Your task to perform on an android device: change the clock style Image 0: 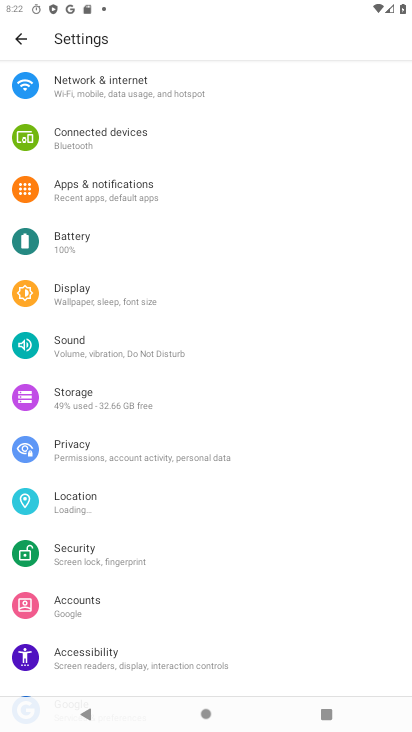
Step 0: press home button
Your task to perform on an android device: change the clock style Image 1: 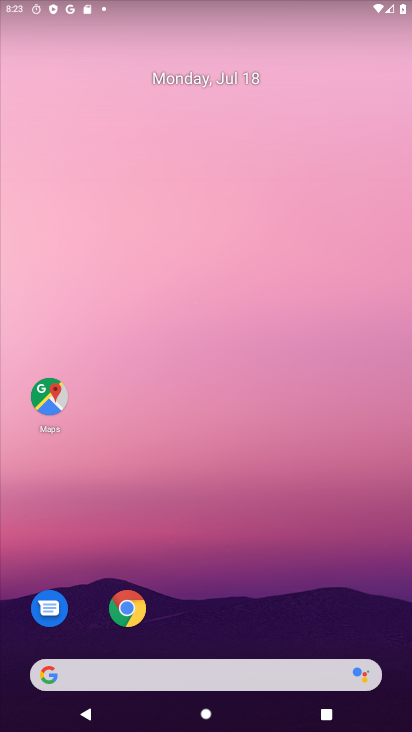
Step 1: drag from (27, 702) to (144, 298)
Your task to perform on an android device: change the clock style Image 2: 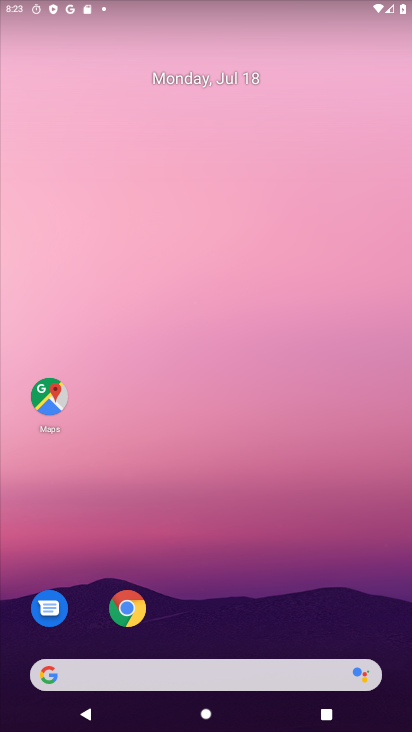
Step 2: drag from (22, 669) to (205, 198)
Your task to perform on an android device: change the clock style Image 3: 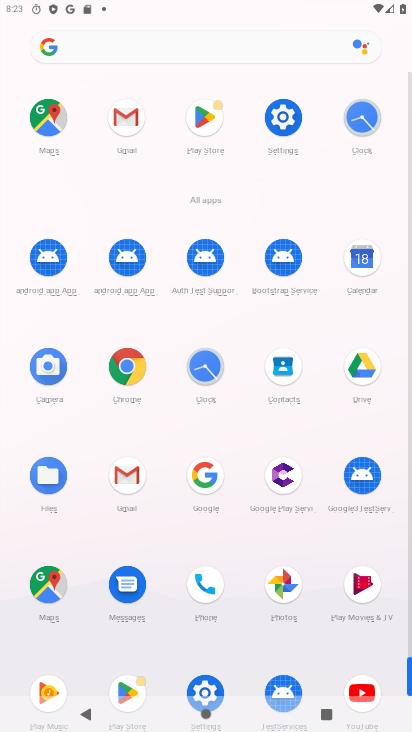
Step 3: click (208, 384)
Your task to perform on an android device: change the clock style Image 4: 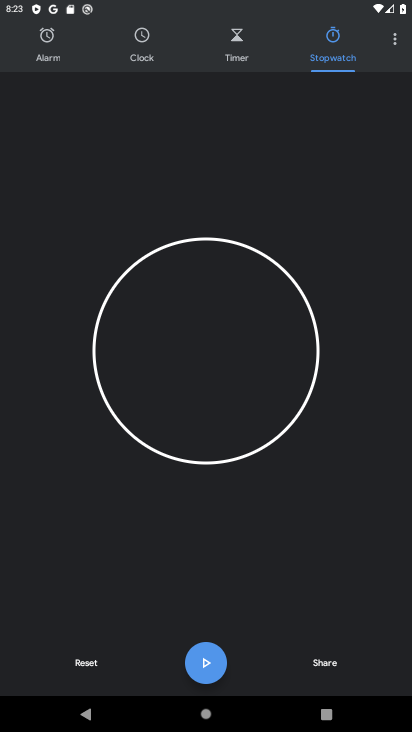
Step 4: click (45, 62)
Your task to perform on an android device: change the clock style Image 5: 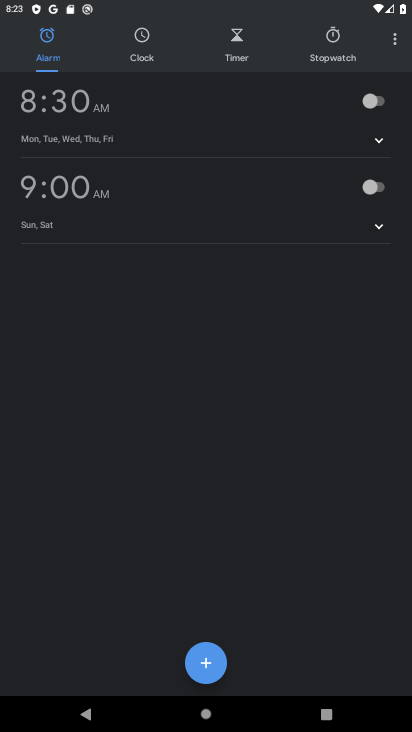
Step 5: click (392, 40)
Your task to perform on an android device: change the clock style Image 6: 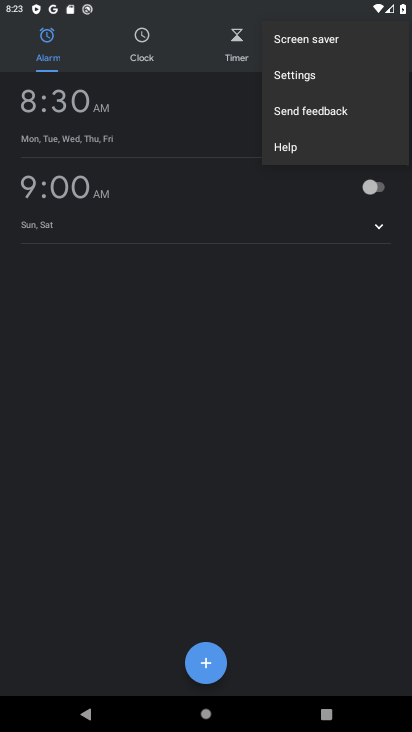
Step 6: click (283, 65)
Your task to perform on an android device: change the clock style Image 7: 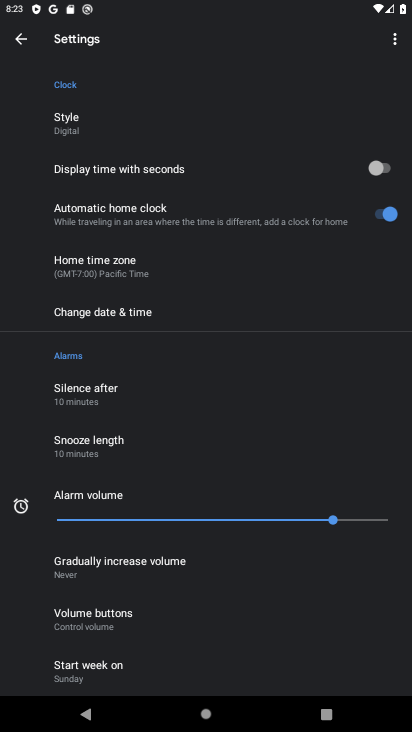
Step 7: click (67, 129)
Your task to perform on an android device: change the clock style Image 8: 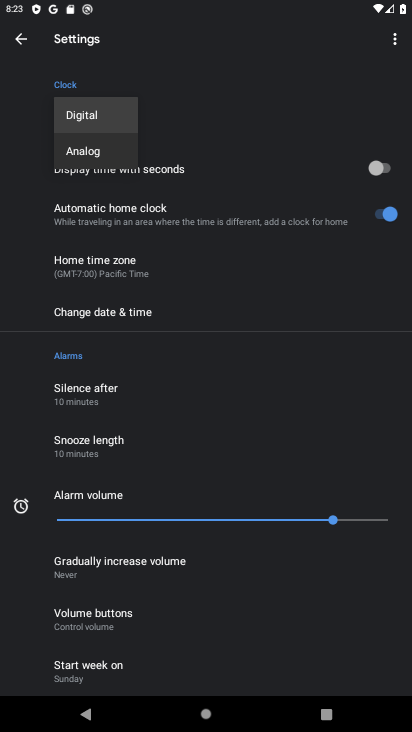
Step 8: click (78, 159)
Your task to perform on an android device: change the clock style Image 9: 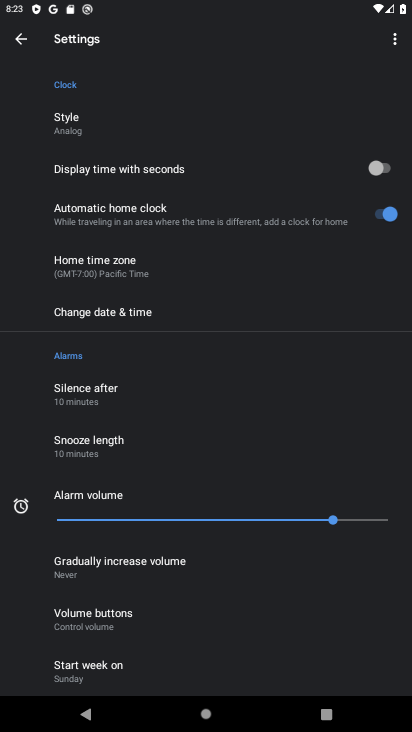
Step 9: task complete